Your task to perform on an android device: Open Android settings Image 0: 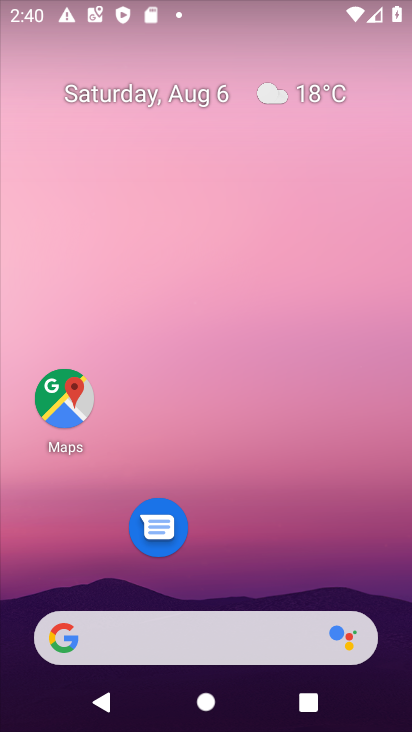
Step 0: drag from (264, 588) to (266, 6)
Your task to perform on an android device: Open Android settings Image 1: 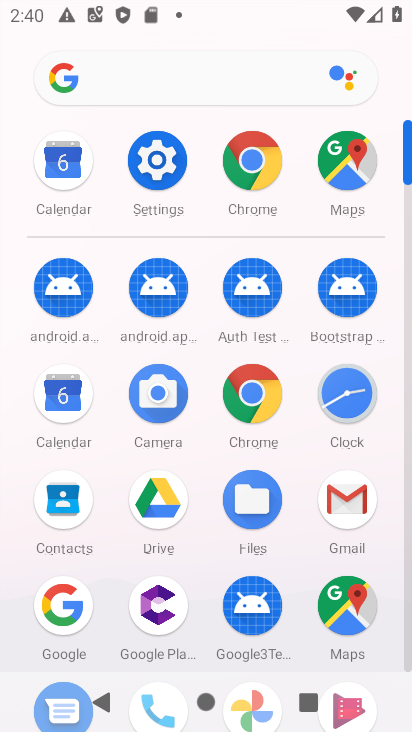
Step 1: click (163, 166)
Your task to perform on an android device: Open Android settings Image 2: 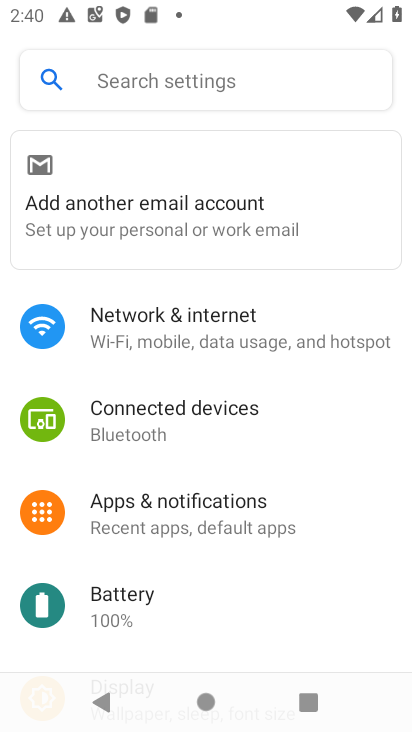
Step 2: task complete